Your task to perform on an android device: Search for a new blush on Sephora Image 0: 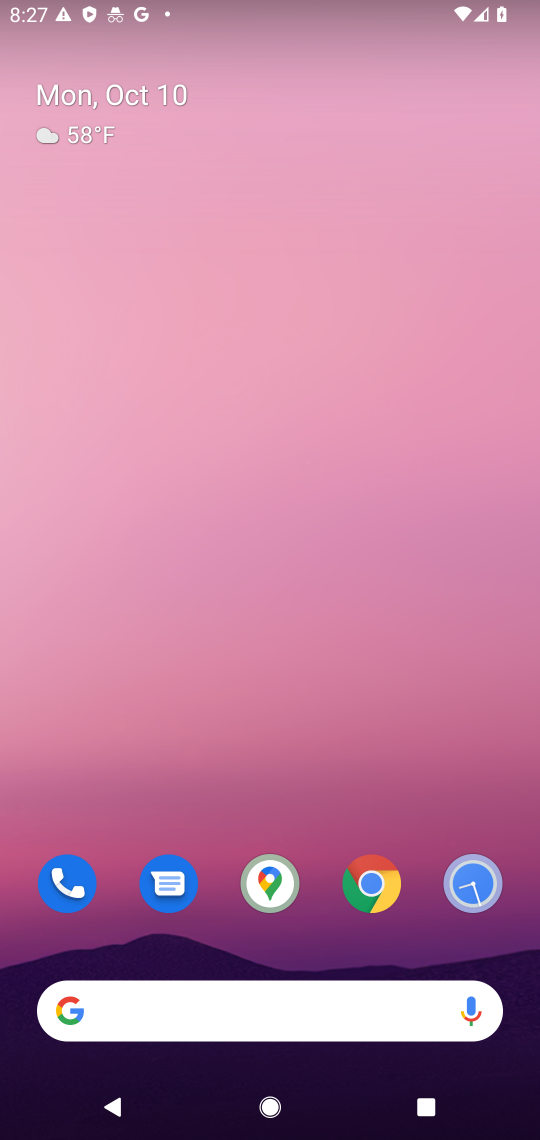
Step 0: drag from (340, 998) to (523, 6)
Your task to perform on an android device: Search for a new blush on Sephora Image 1: 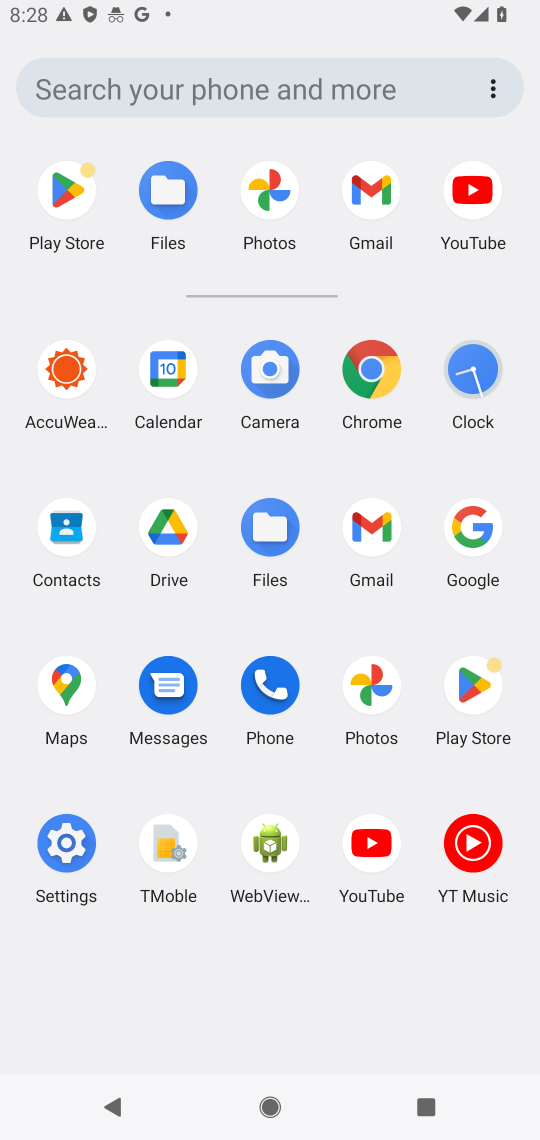
Step 1: click (473, 561)
Your task to perform on an android device: Search for a new blush on Sephora Image 2: 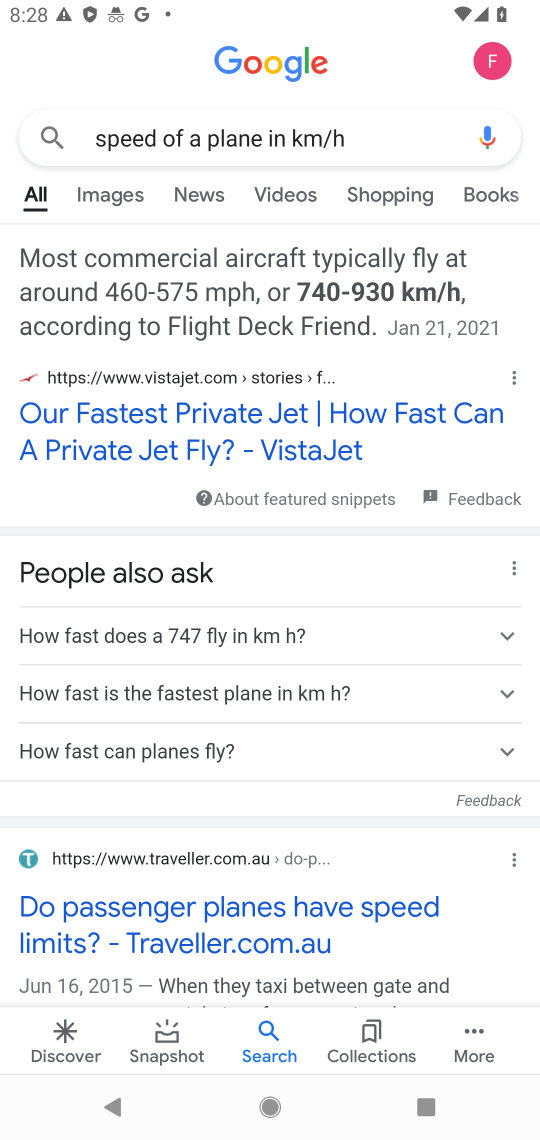
Step 2: click (422, 142)
Your task to perform on an android device: Search for a new blush on Sephora Image 3: 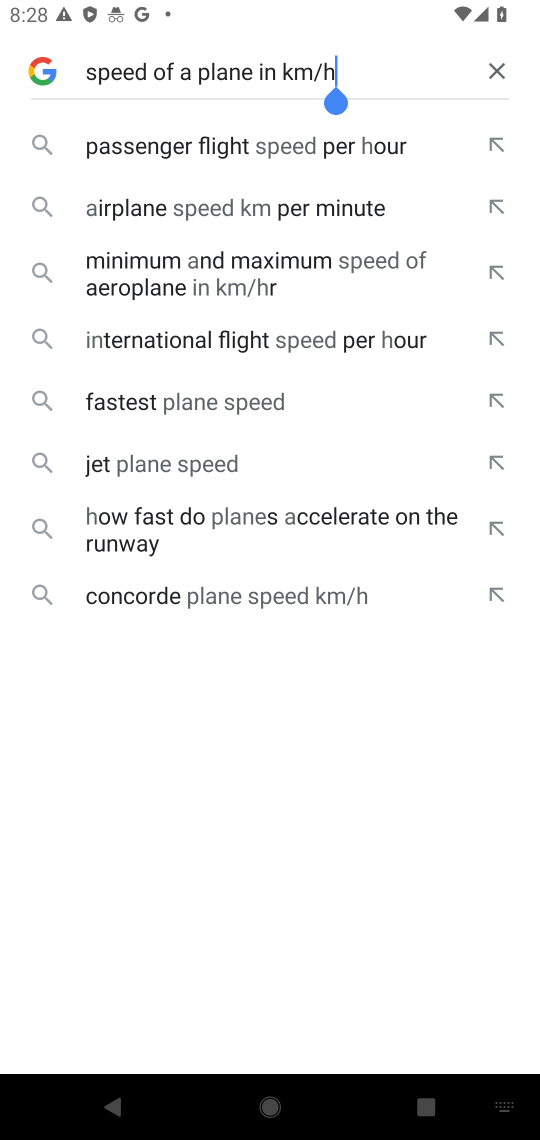
Step 3: click (501, 61)
Your task to perform on an android device: Search for a new blush on Sephora Image 4: 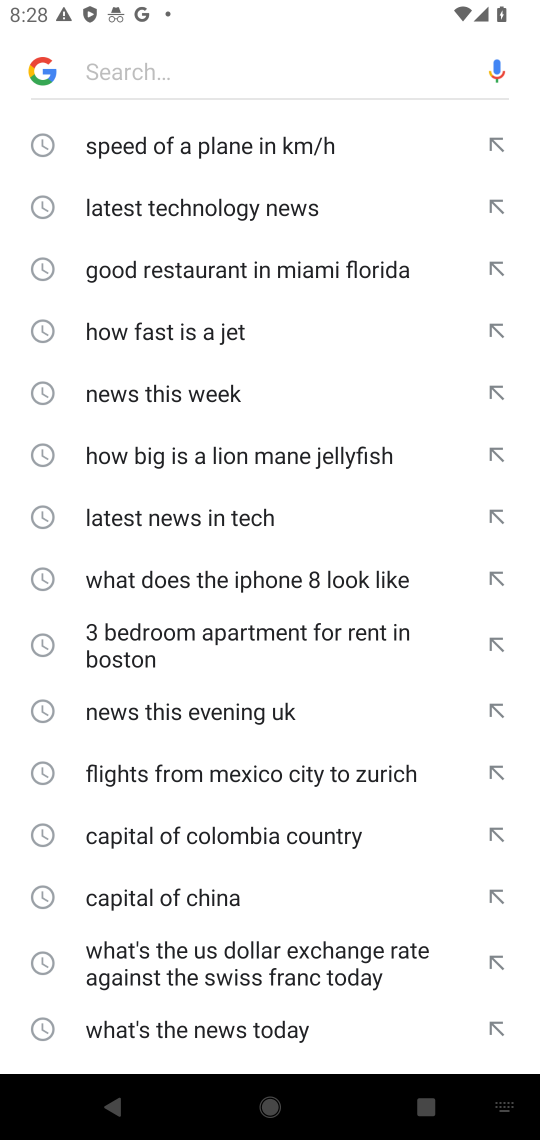
Step 4: type "new blush on Sephora"
Your task to perform on an android device: Search for a new blush on Sephora Image 5: 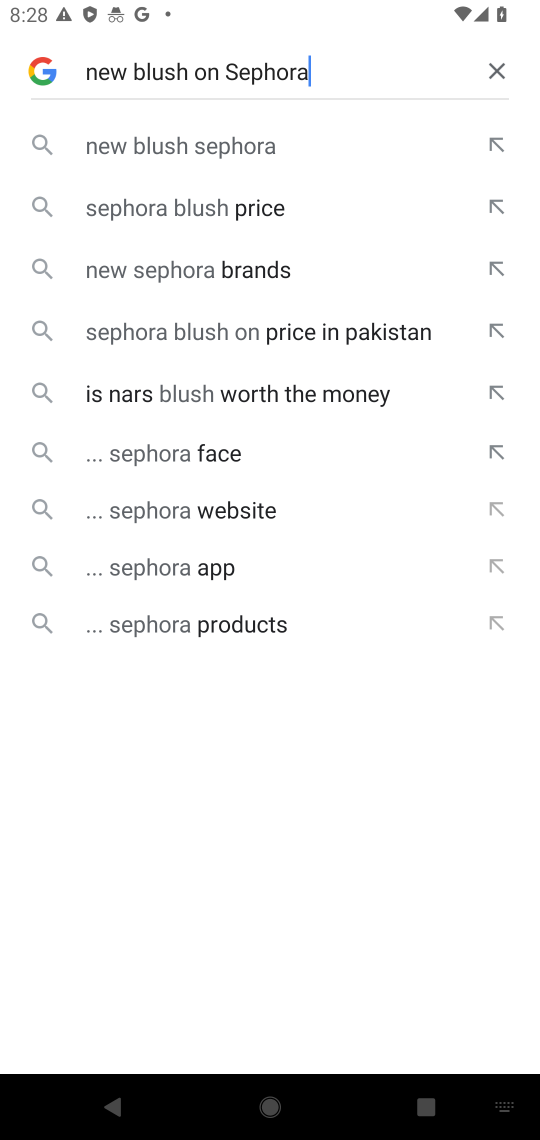
Step 5: click (255, 156)
Your task to perform on an android device: Search for a new blush on Sephora Image 6: 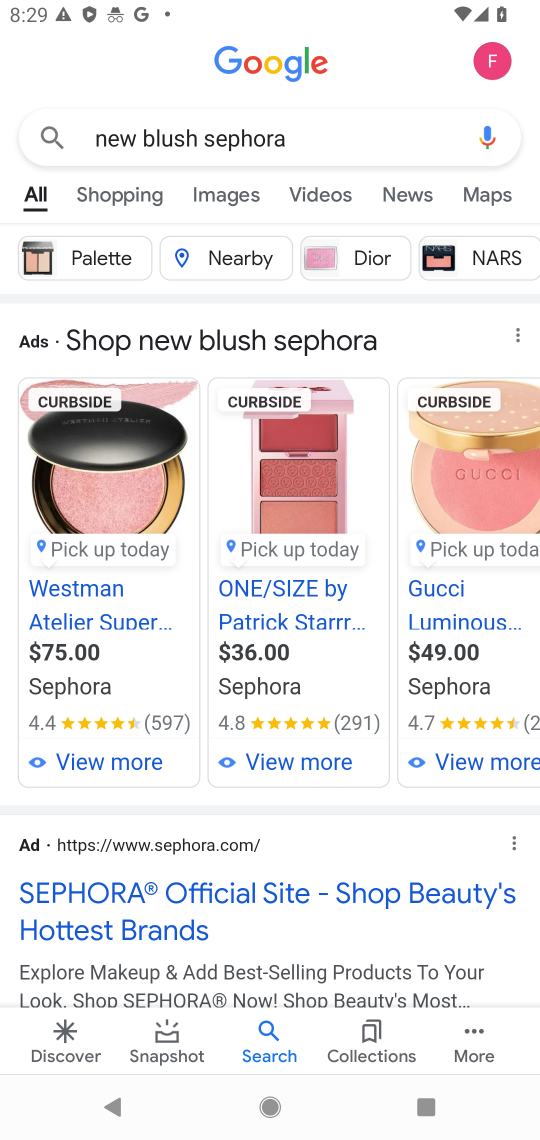
Step 6: task complete